Your task to perform on an android device: Search for Mexican restaurants on Maps Image 0: 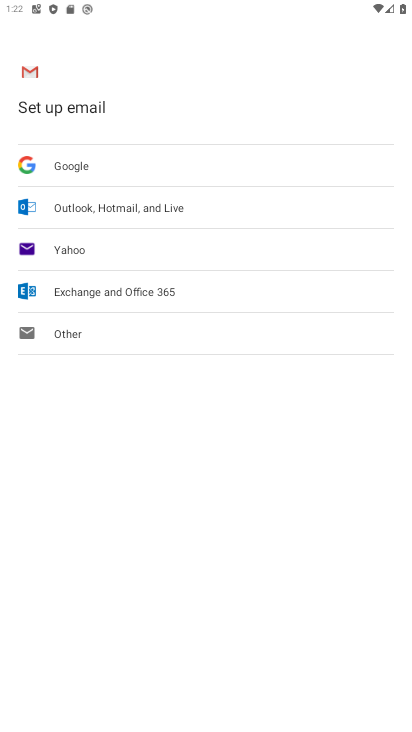
Step 0: press back button
Your task to perform on an android device: Search for Mexican restaurants on Maps Image 1: 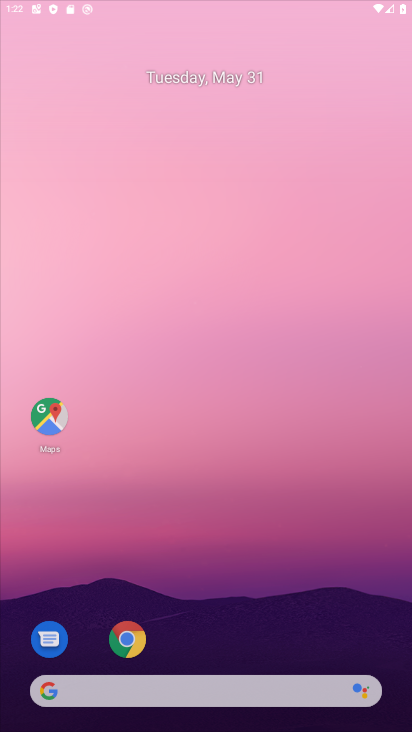
Step 1: press home button
Your task to perform on an android device: Search for Mexican restaurants on Maps Image 2: 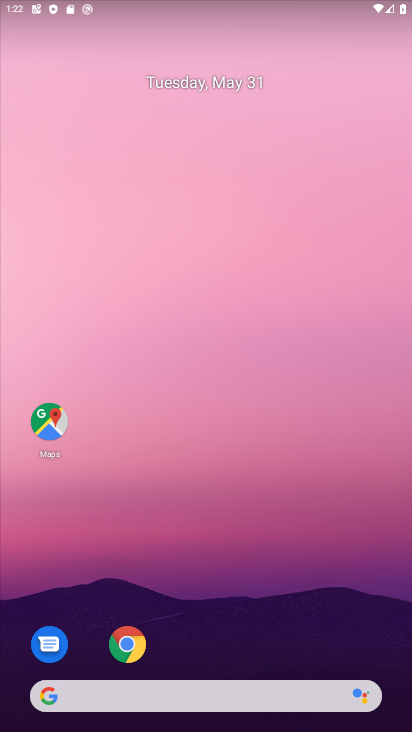
Step 2: click (65, 418)
Your task to perform on an android device: Search for Mexican restaurants on Maps Image 3: 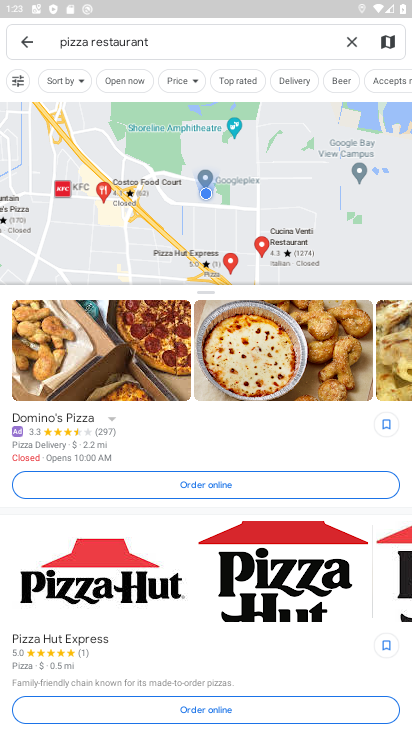
Step 3: click (356, 44)
Your task to perform on an android device: Search for Mexican restaurants on Maps Image 4: 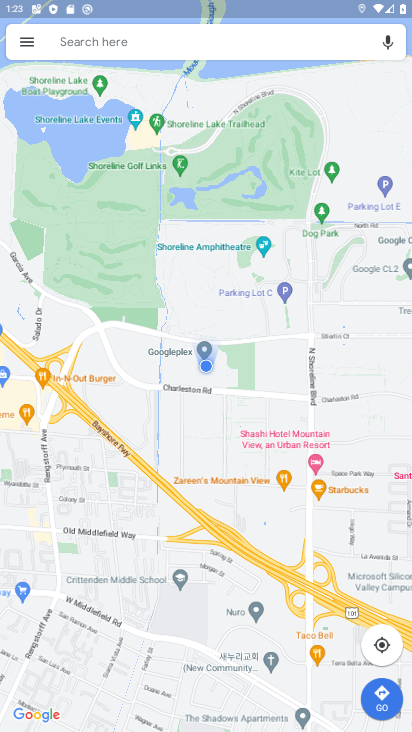
Step 4: click (146, 39)
Your task to perform on an android device: Search for Mexican restaurants on Maps Image 5: 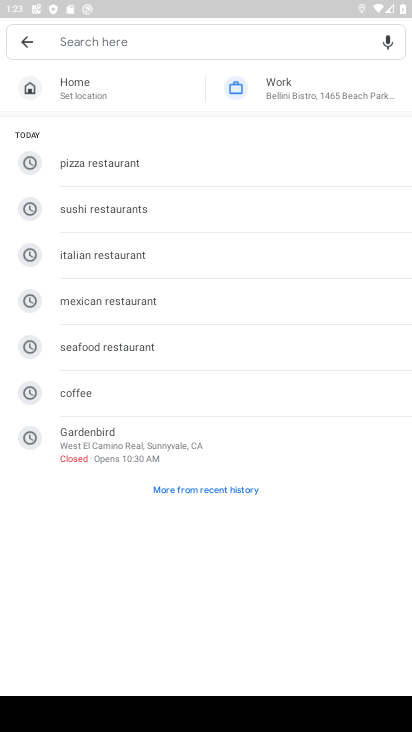
Step 5: type "Mexican restaurants "
Your task to perform on an android device: Search for Mexican restaurants on Maps Image 6: 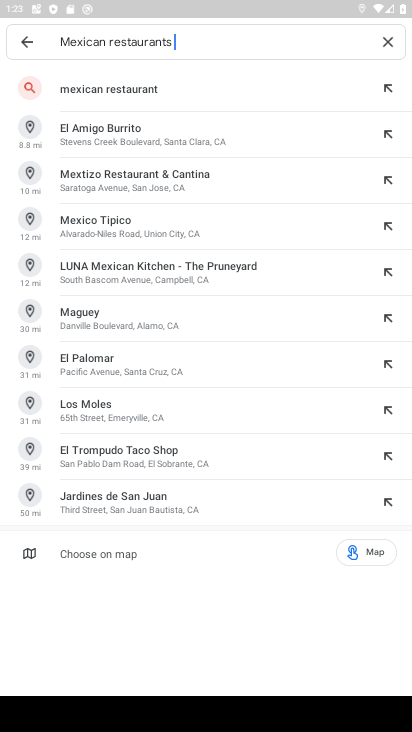
Step 6: click (147, 90)
Your task to perform on an android device: Search for Mexican restaurants on Maps Image 7: 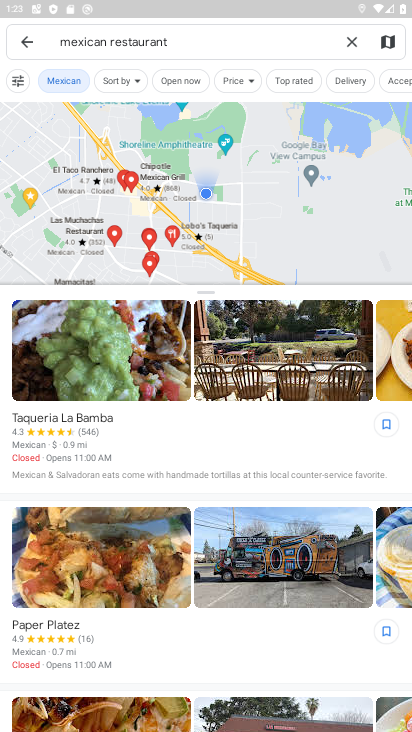
Step 7: task complete